Your task to perform on an android device: Search for seafood restaurants on Google Maps Image 0: 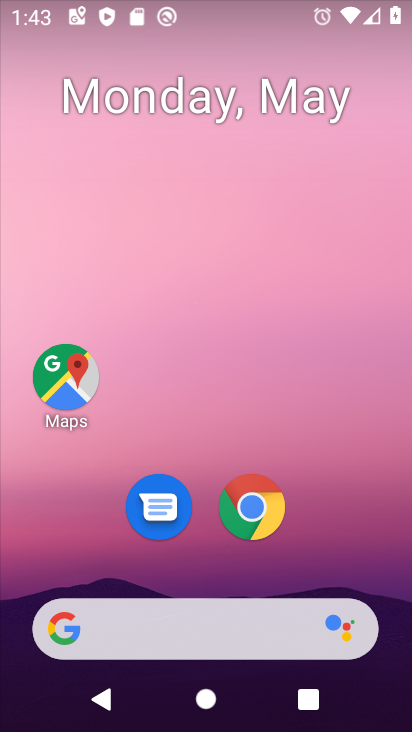
Step 0: drag from (237, 706) to (221, 135)
Your task to perform on an android device: Search for seafood restaurants on Google Maps Image 1: 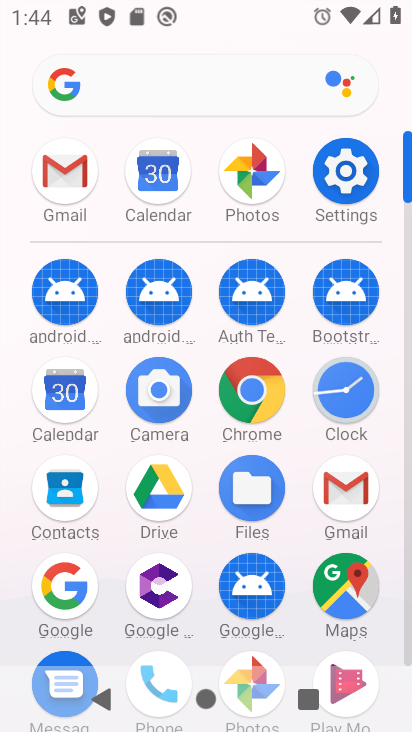
Step 1: click (344, 582)
Your task to perform on an android device: Search for seafood restaurants on Google Maps Image 2: 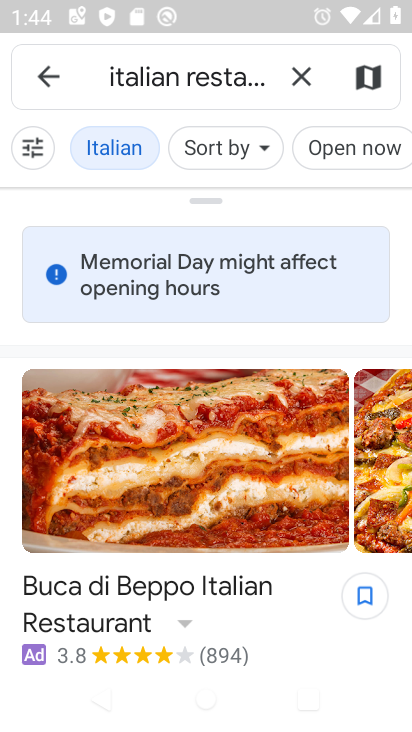
Step 2: click (296, 72)
Your task to perform on an android device: Search for seafood restaurants on Google Maps Image 3: 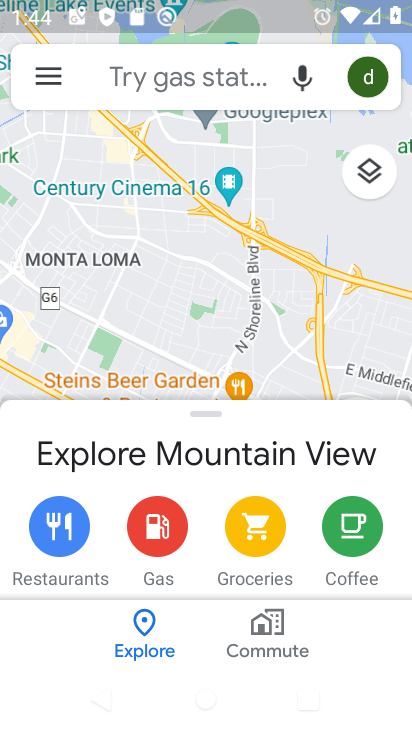
Step 3: click (191, 72)
Your task to perform on an android device: Search for seafood restaurants on Google Maps Image 4: 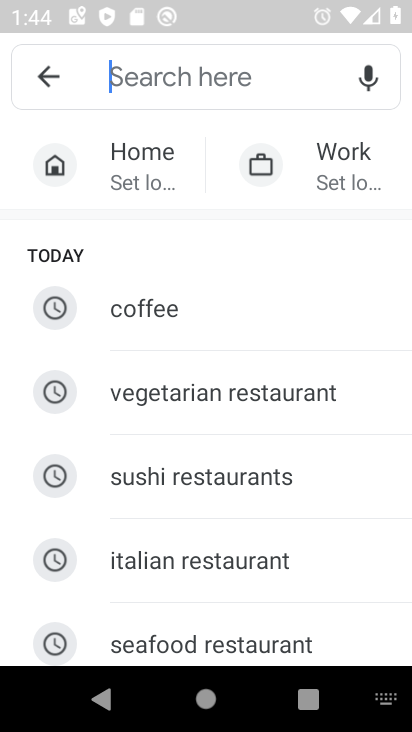
Step 4: type "seafood restaurnts"
Your task to perform on an android device: Search for seafood restaurants on Google Maps Image 5: 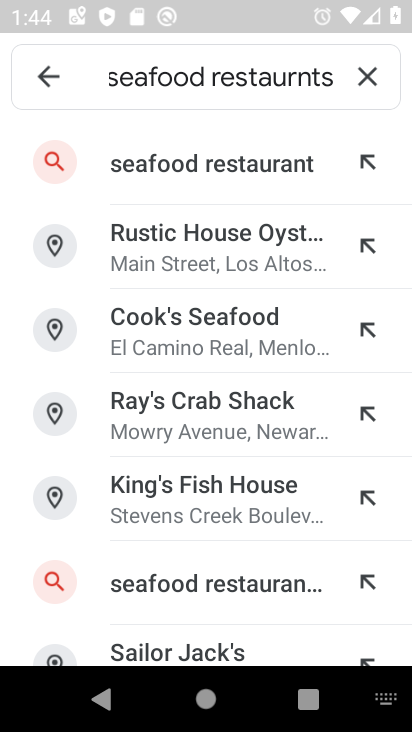
Step 5: click (264, 157)
Your task to perform on an android device: Search for seafood restaurants on Google Maps Image 6: 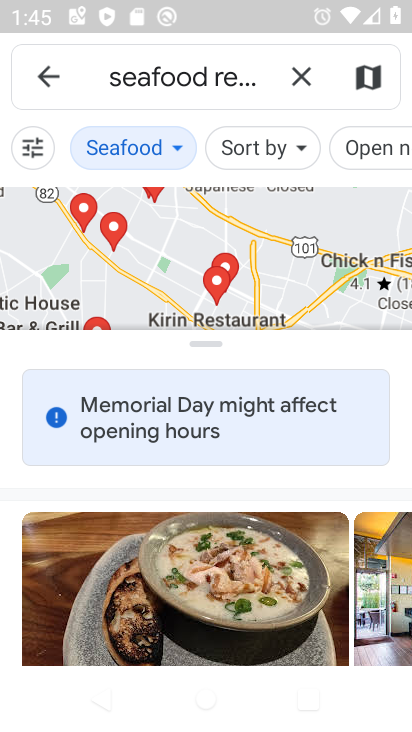
Step 6: task complete